Your task to perform on an android device: turn smart compose on in the gmail app Image 0: 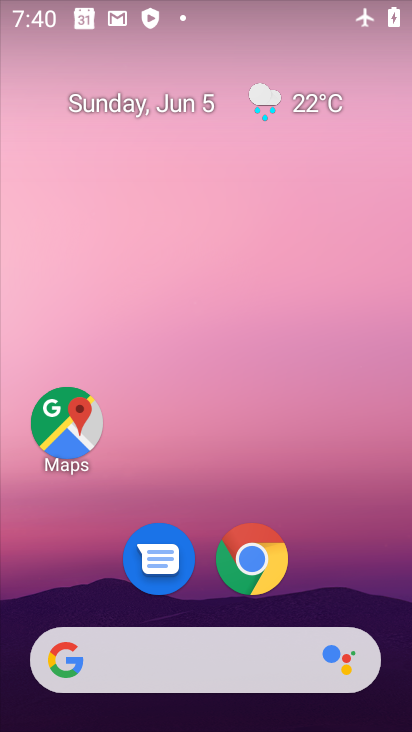
Step 0: drag from (361, 535) to (209, 165)
Your task to perform on an android device: turn smart compose on in the gmail app Image 1: 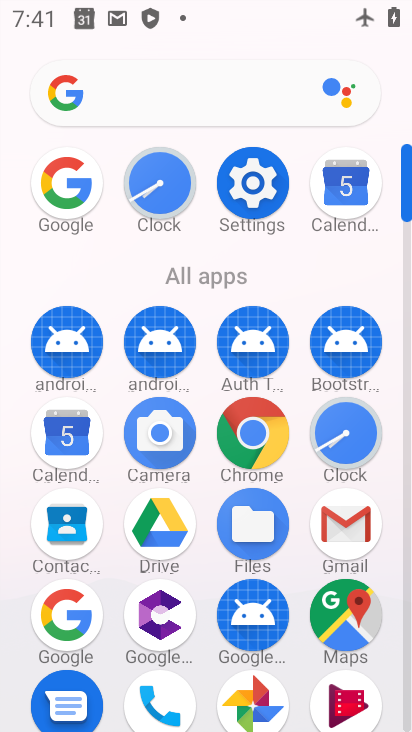
Step 1: click (345, 522)
Your task to perform on an android device: turn smart compose on in the gmail app Image 2: 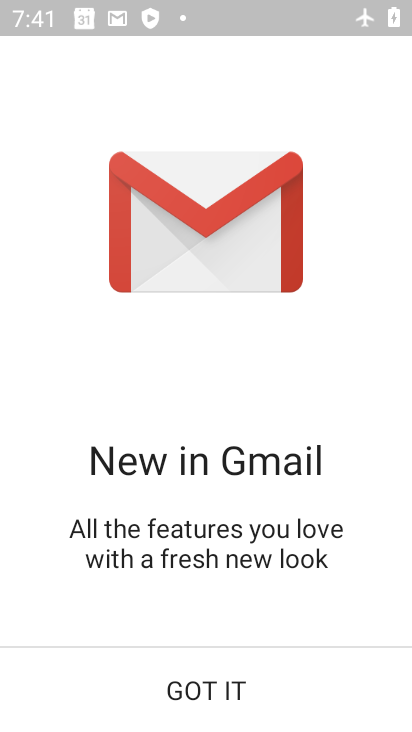
Step 2: click (210, 696)
Your task to perform on an android device: turn smart compose on in the gmail app Image 3: 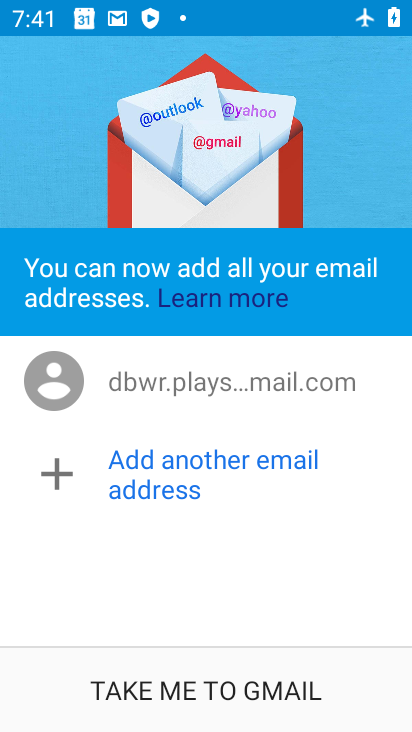
Step 3: click (210, 696)
Your task to perform on an android device: turn smart compose on in the gmail app Image 4: 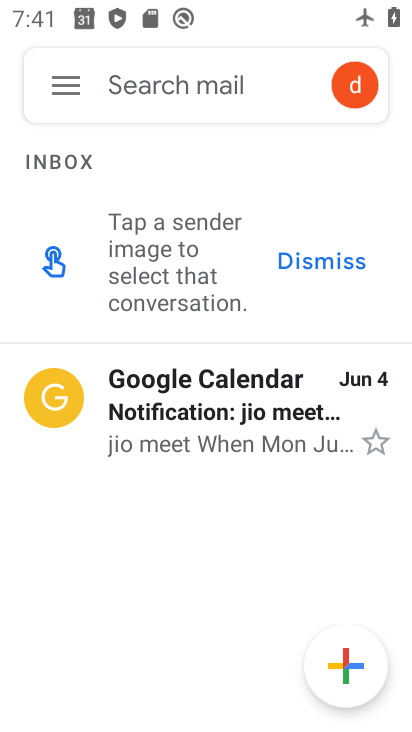
Step 4: click (70, 84)
Your task to perform on an android device: turn smart compose on in the gmail app Image 5: 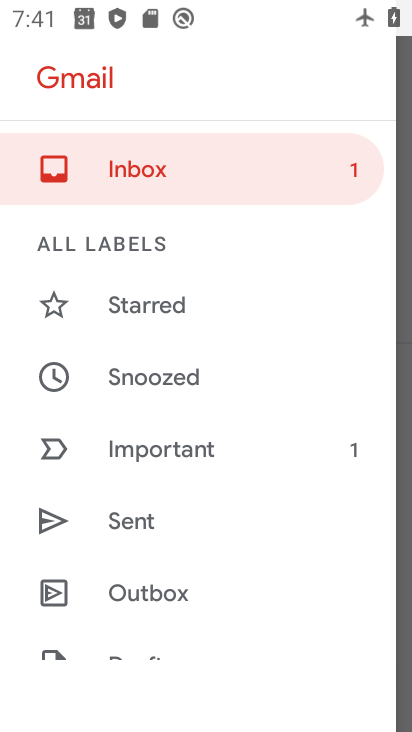
Step 5: drag from (134, 351) to (201, 252)
Your task to perform on an android device: turn smart compose on in the gmail app Image 6: 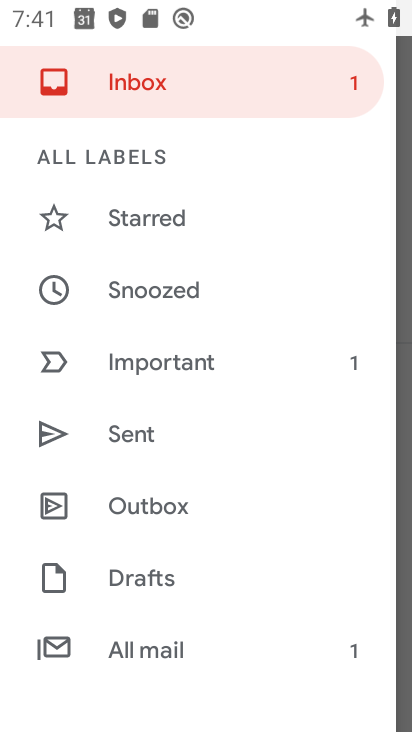
Step 6: drag from (155, 327) to (200, 235)
Your task to perform on an android device: turn smart compose on in the gmail app Image 7: 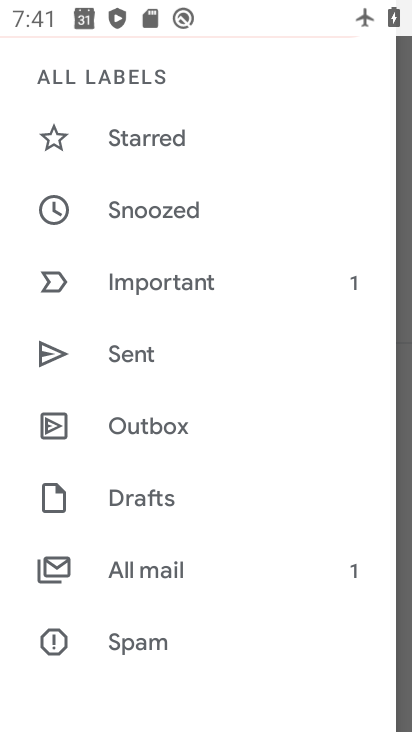
Step 7: drag from (147, 400) to (214, 301)
Your task to perform on an android device: turn smart compose on in the gmail app Image 8: 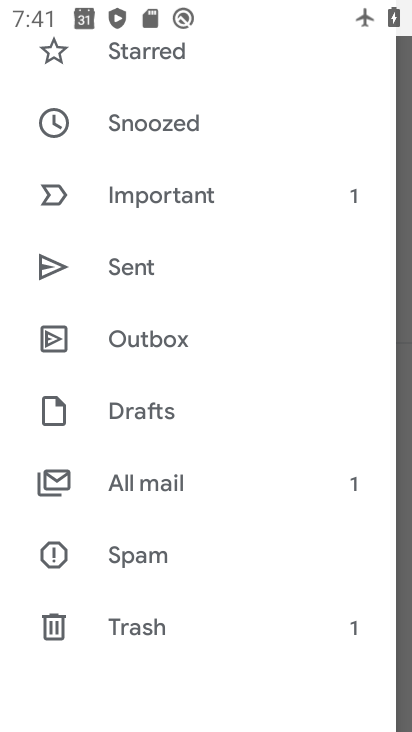
Step 8: drag from (143, 435) to (218, 341)
Your task to perform on an android device: turn smart compose on in the gmail app Image 9: 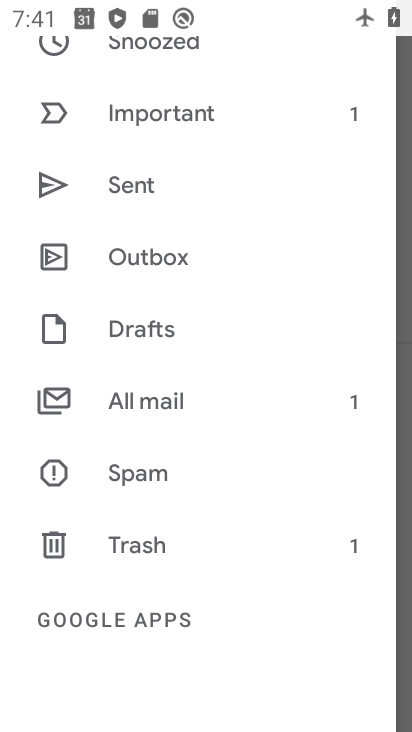
Step 9: drag from (147, 440) to (219, 347)
Your task to perform on an android device: turn smart compose on in the gmail app Image 10: 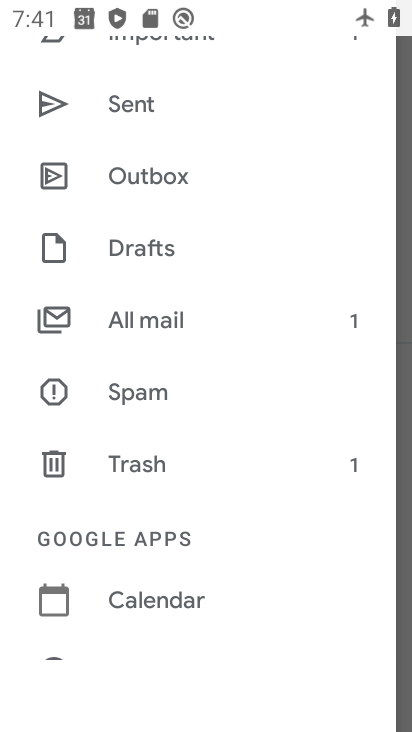
Step 10: drag from (149, 441) to (230, 346)
Your task to perform on an android device: turn smart compose on in the gmail app Image 11: 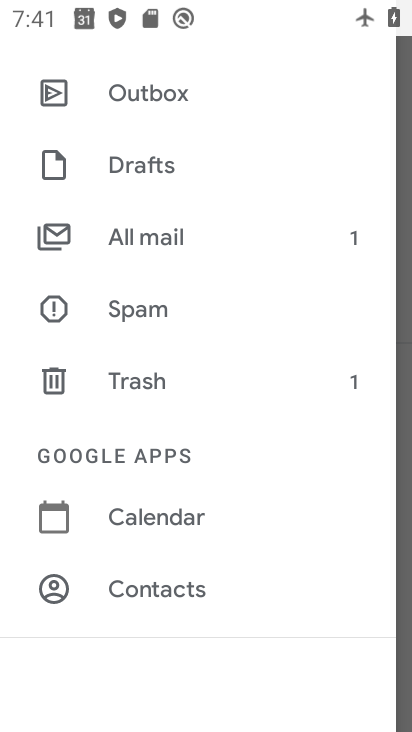
Step 11: drag from (144, 477) to (238, 374)
Your task to perform on an android device: turn smart compose on in the gmail app Image 12: 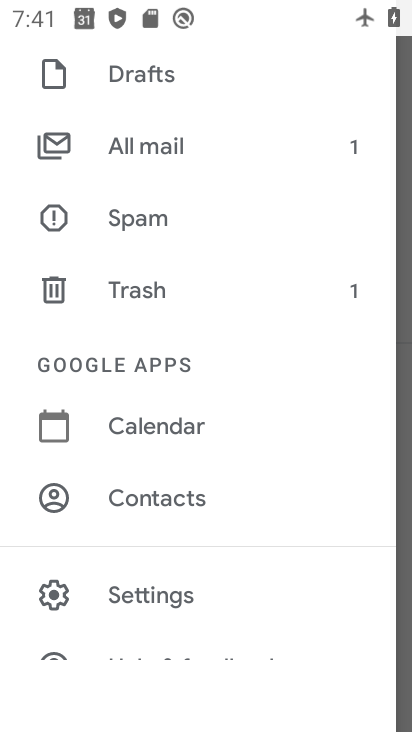
Step 12: drag from (148, 558) to (261, 428)
Your task to perform on an android device: turn smart compose on in the gmail app Image 13: 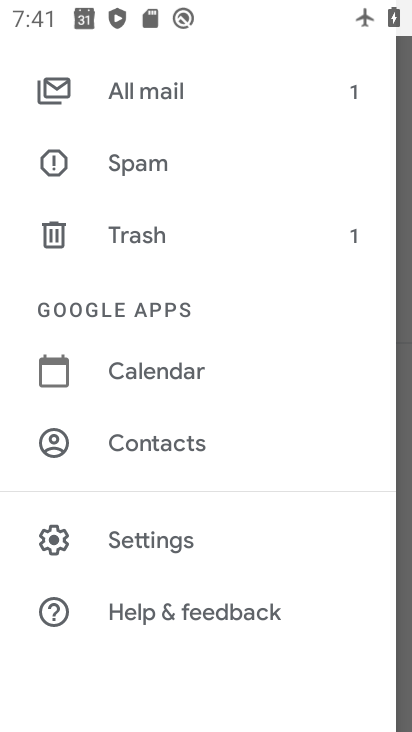
Step 13: click (157, 541)
Your task to perform on an android device: turn smart compose on in the gmail app Image 14: 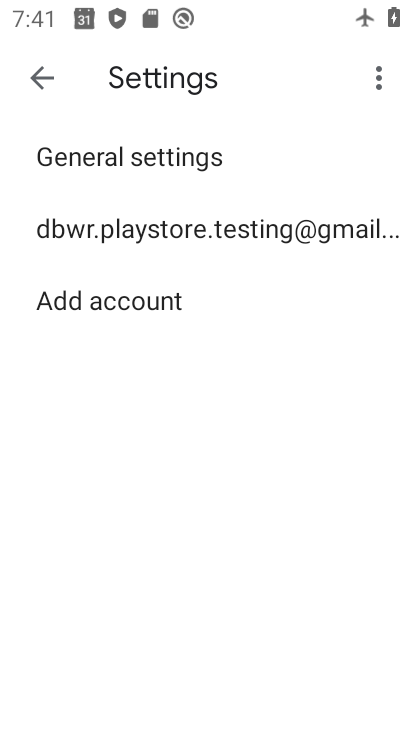
Step 14: click (275, 236)
Your task to perform on an android device: turn smart compose on in the gmail app Image 15: 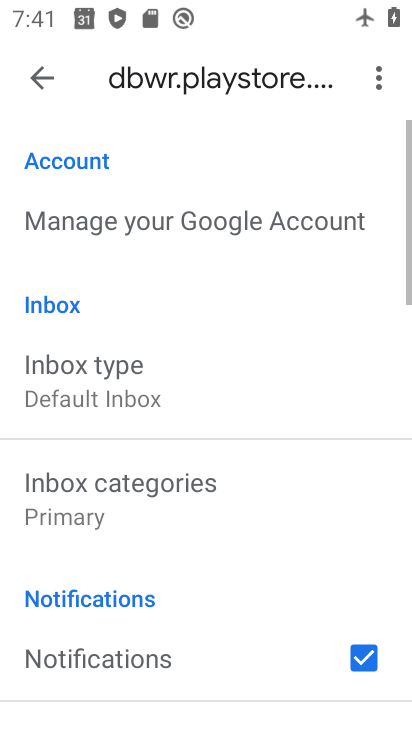
Step 15: task complete